Your task to perform on an android device: see creations saved in the google photos Image 0: 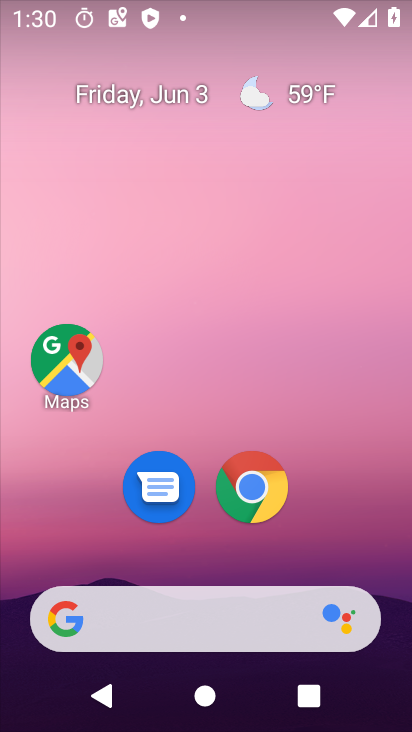
Step 0: drag from (209, 269) to (211, 129)
Your task to perform on an android device: see creations saved in the google photos Image 1: 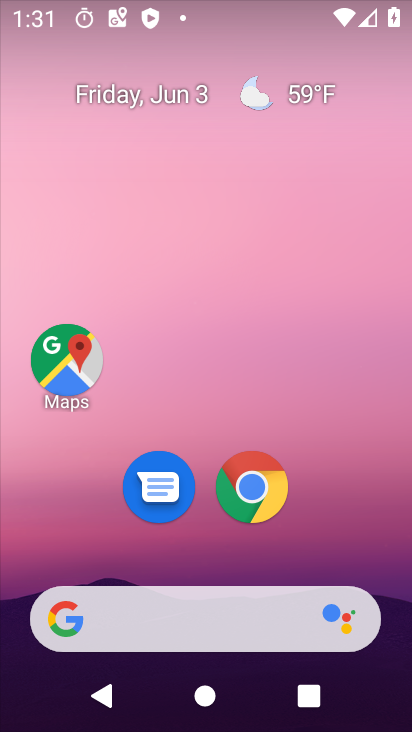
Step 1: drag from (201, 555) to (256, 11)
Your task to perform on an android device: see creations saved in the google photos Image 2: 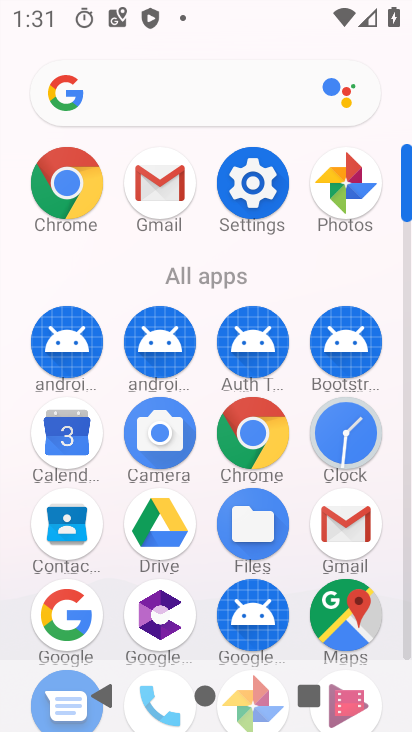
Step 2: drag from (206, 578) to (209, 183)
Your task to perform on an android device: see creations saved in the google photos Image 3: 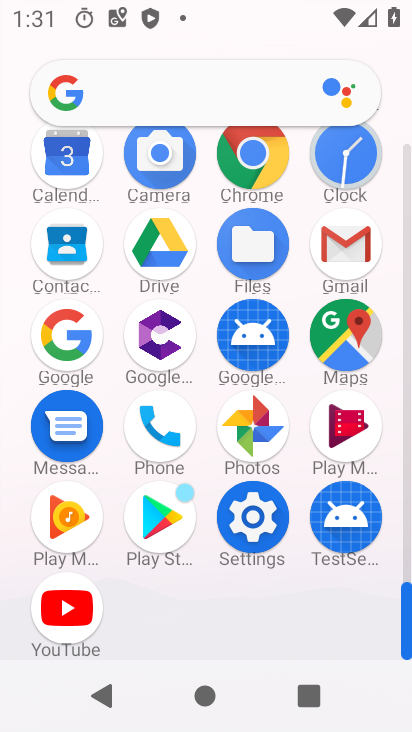
Step 3: click (253, 420)
Your task to perform on an android device: see creations saved in the google photos Image 4: 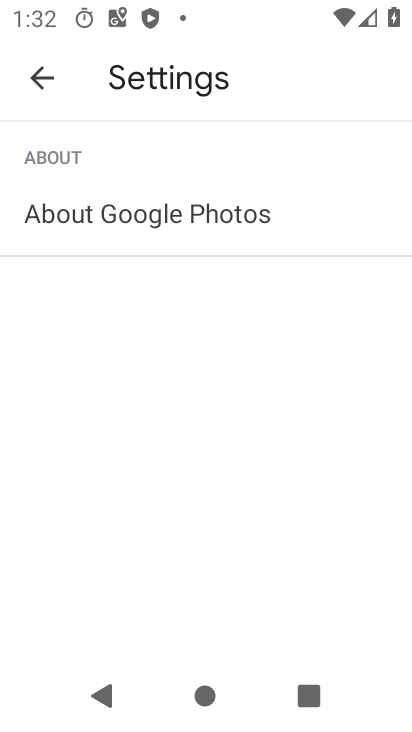
Step 4: click (46, 82)
Your task to perform on an android device: see creations saved in the google photos Image 5: 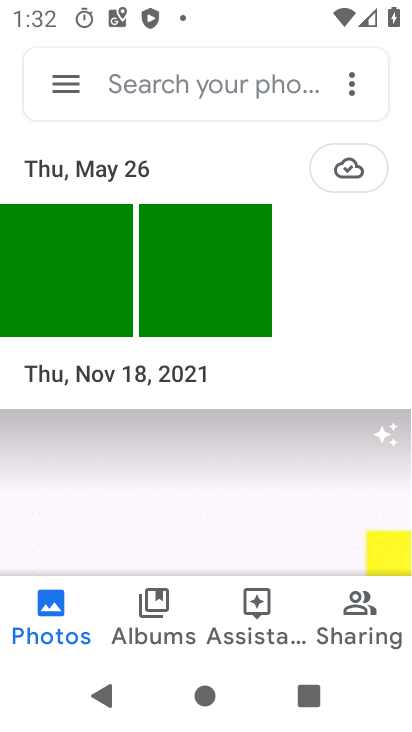
Step 5: click (53, 81)
Your task to perform on an android device: see creations saved in the google photos Image 6: 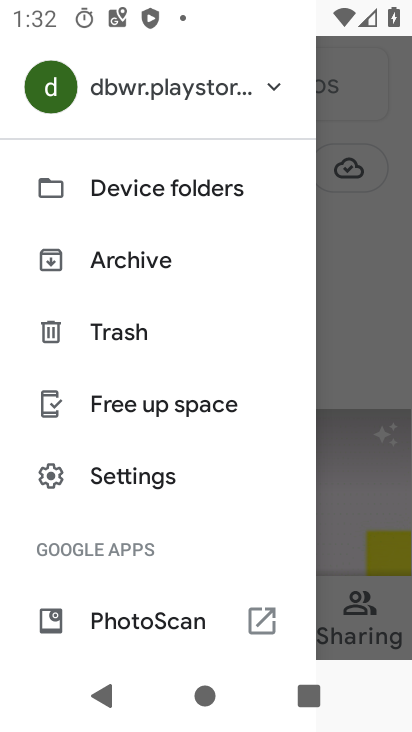
Step 6: click (133, 470)
Your task to perform on an android device: see creations saved in the google photos Image 7: 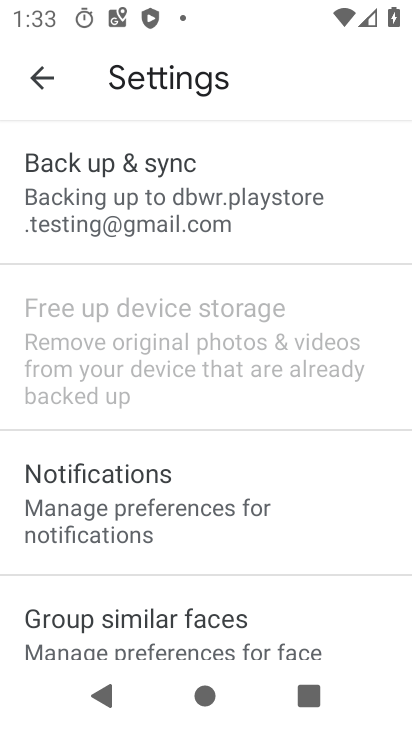
Step 7: click (40, 72)
Your task to perform on an android device: see creations saved in the google photos Image 8: 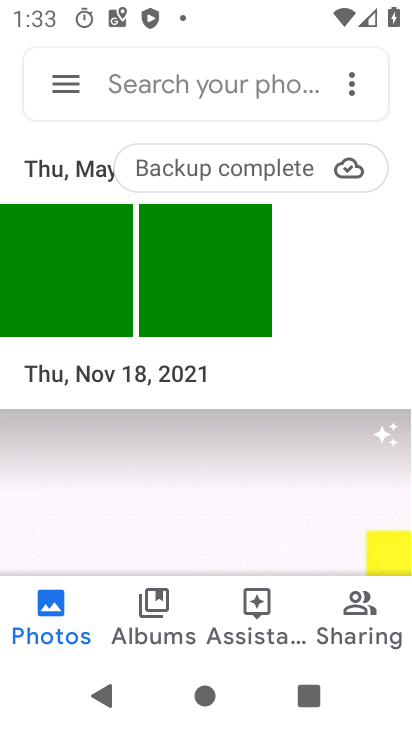
Step 8: click (60, 77)
Your task to perform on an android device: see creations saved in the google photos Image 9: 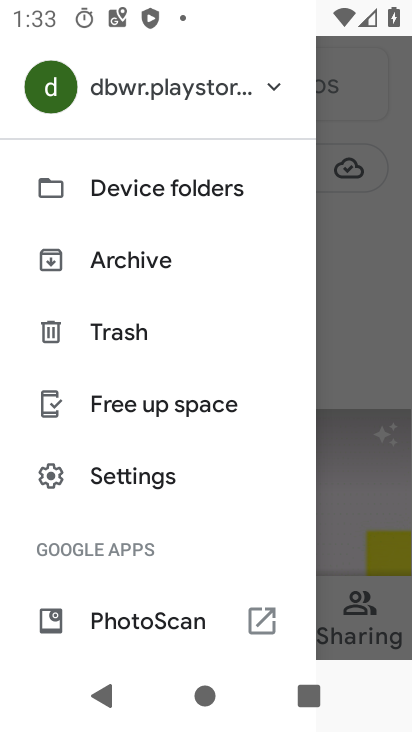
Step 9: click (363, 374)
Your task to perform on an android device: see creations saved in the google photos Image 10: 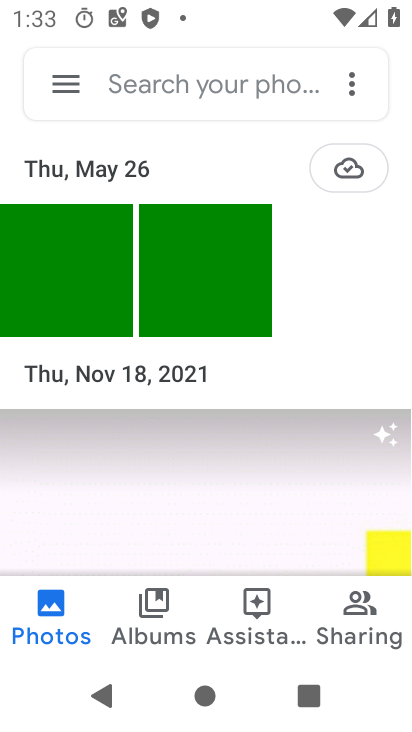
Step 10: click (156, 78)
Your task to perform on an android device: see creations saved in the google photos Image 11: 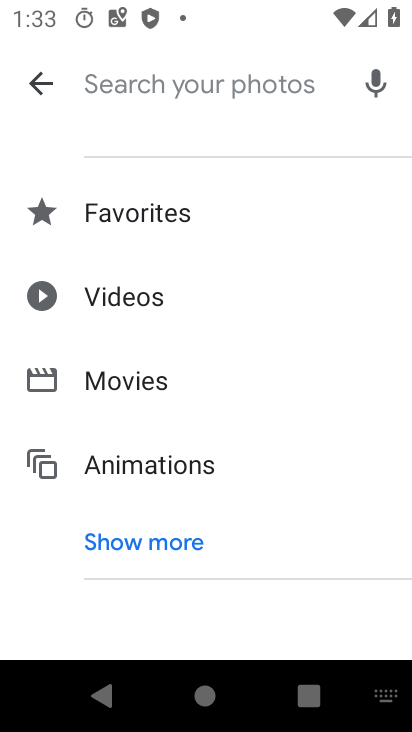
Step 11: click (124, 528)
Your task to perform on an android device: see creations saved in the google photos Image 12: 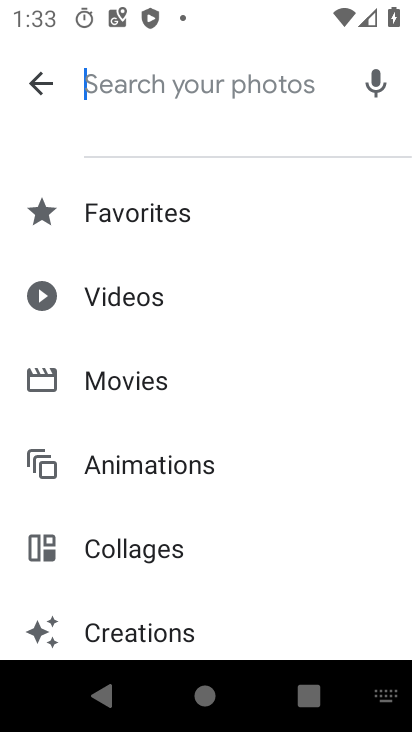
Step 12: drag from (185, 574) to (217, 127)
Your task to perform on an android device: see creations saved in the google photos Image 13: 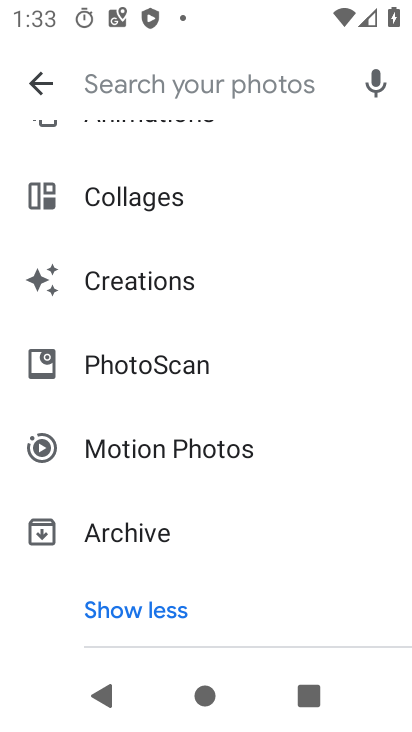
Step 13: click (169, 266)
Your task to perform on an android device: see creations saved in the google photos Image 14: 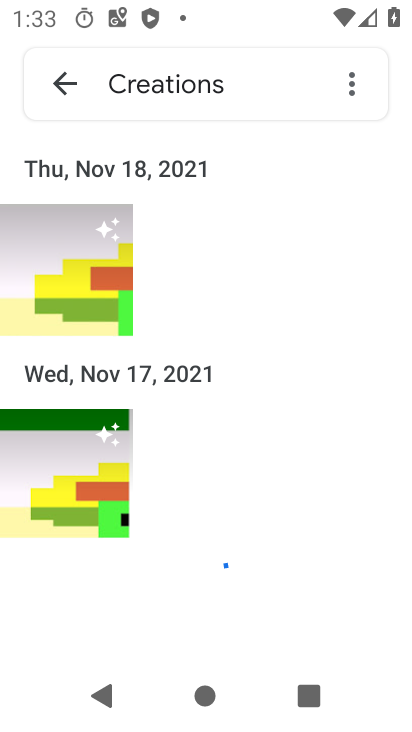
Step 14: task complete